Your task to perform on an android device: open app "WhatsApp Messenger" (install if not already installed) Image 0: 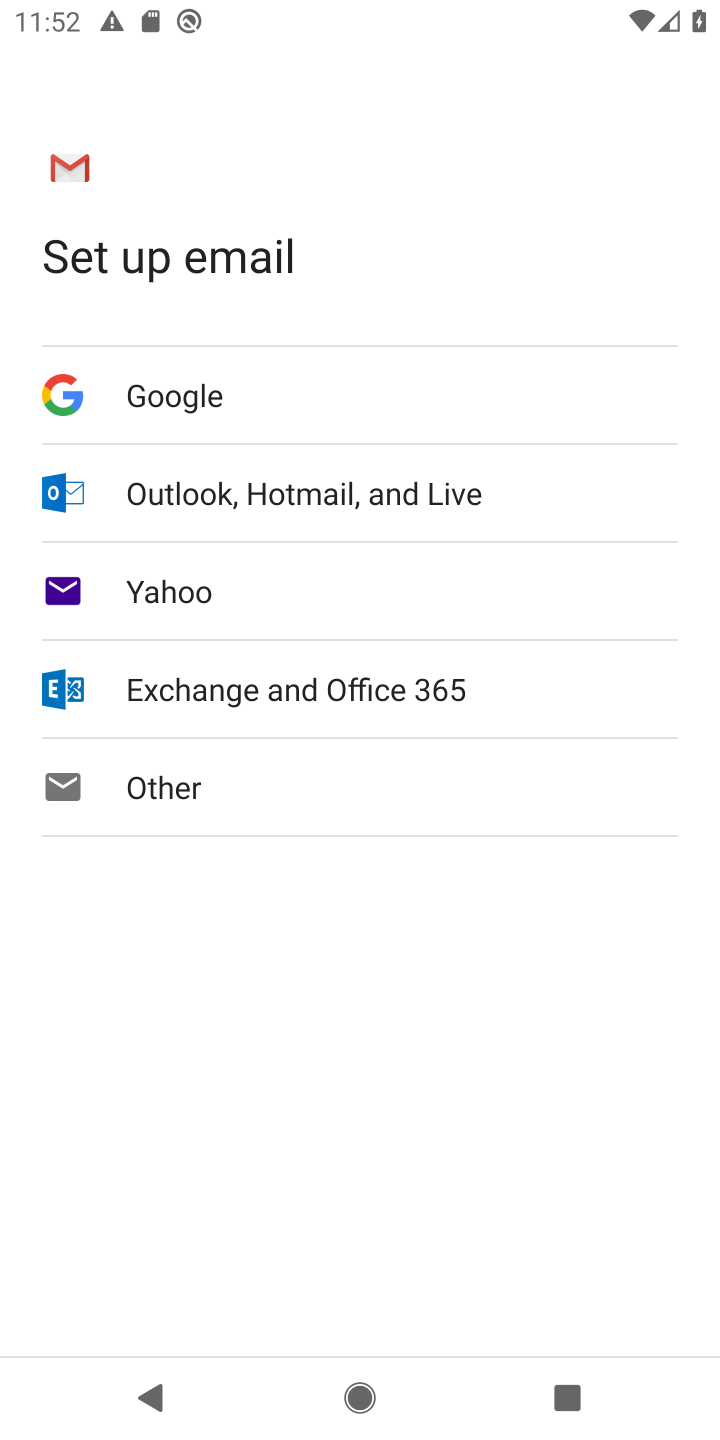
Step 0: press home button
Your task to perform on an android device: open app "WhatsApp Messenger" (install if not already installed) Image 1: 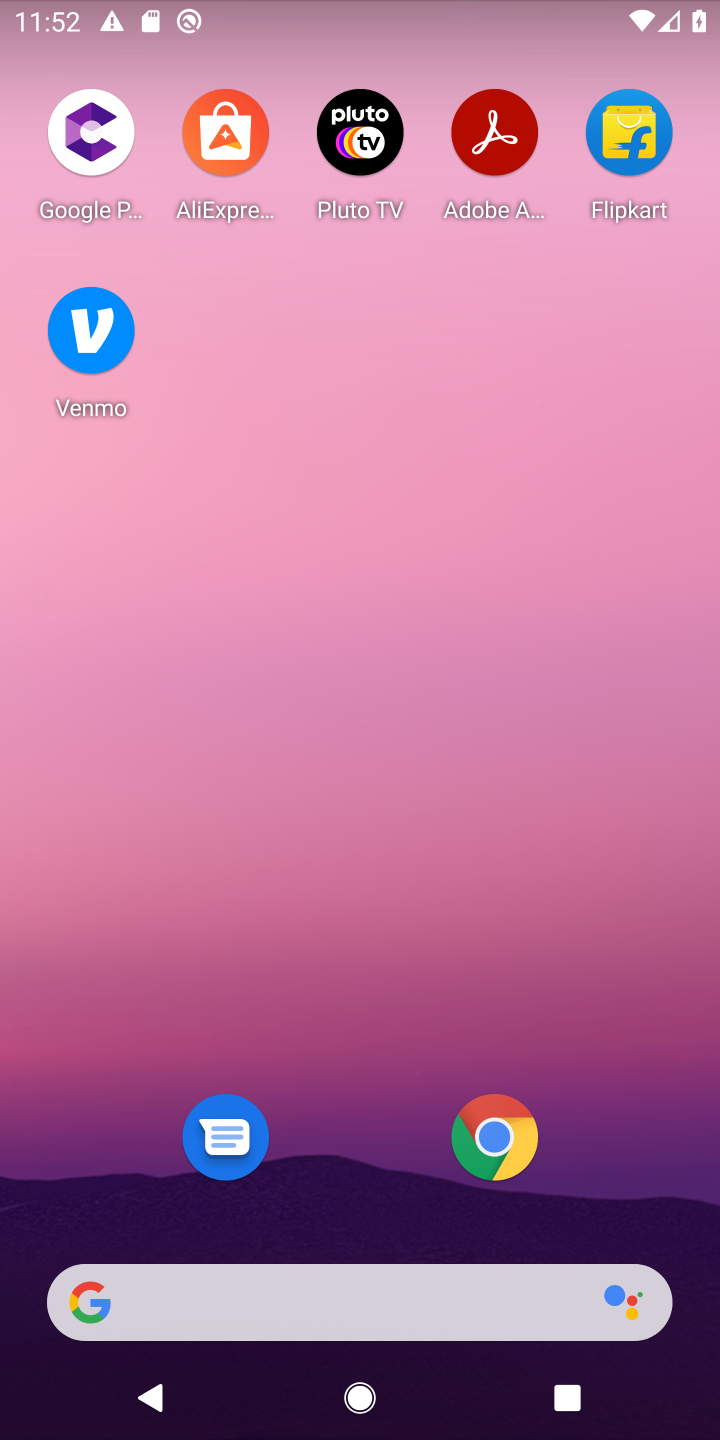
Step 1: drag from (381, 896) to (406, 224)
Your task to perform on an android device: open app "WhatsApp Messenger" (install if not already installed) Image 2: 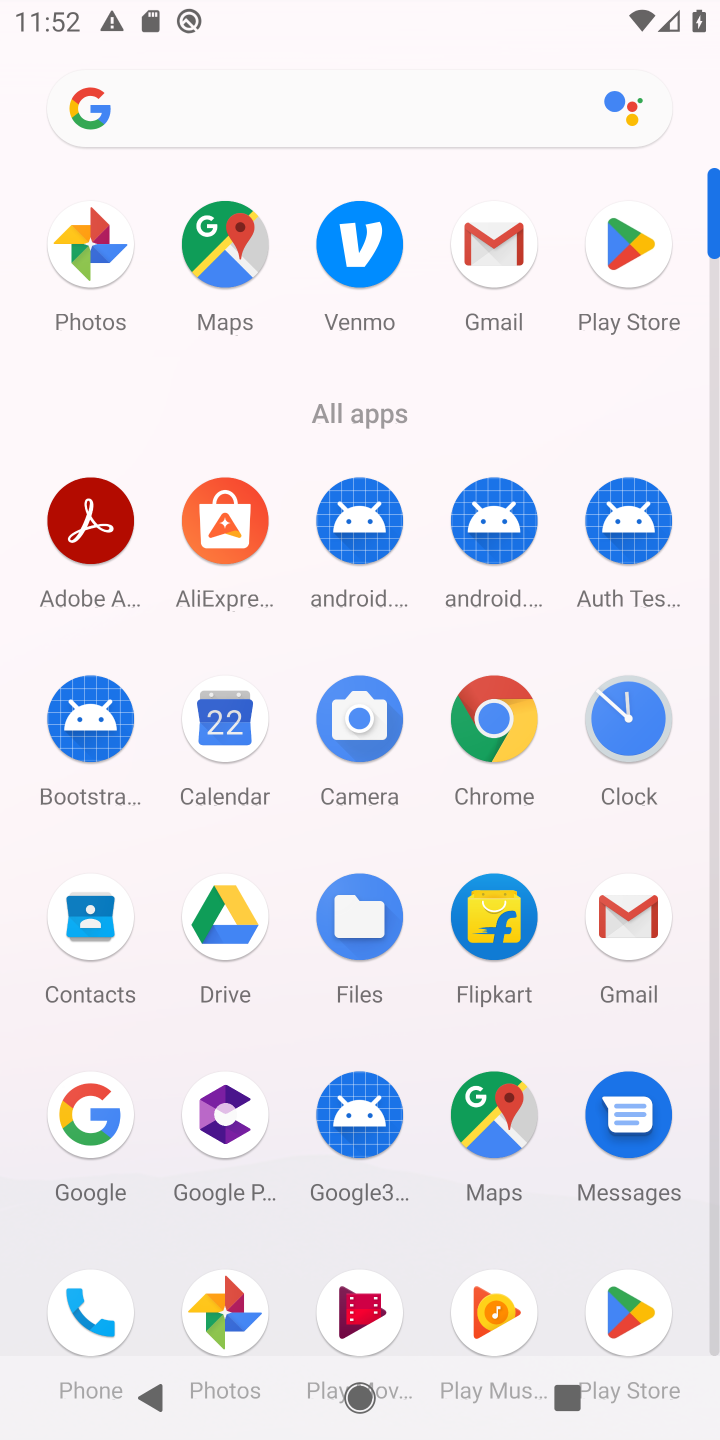
Step 2: click (617, 246)
Your task to perform on an android device: open app "WhatsApp Messenger" (install if not already installed) Image 3: 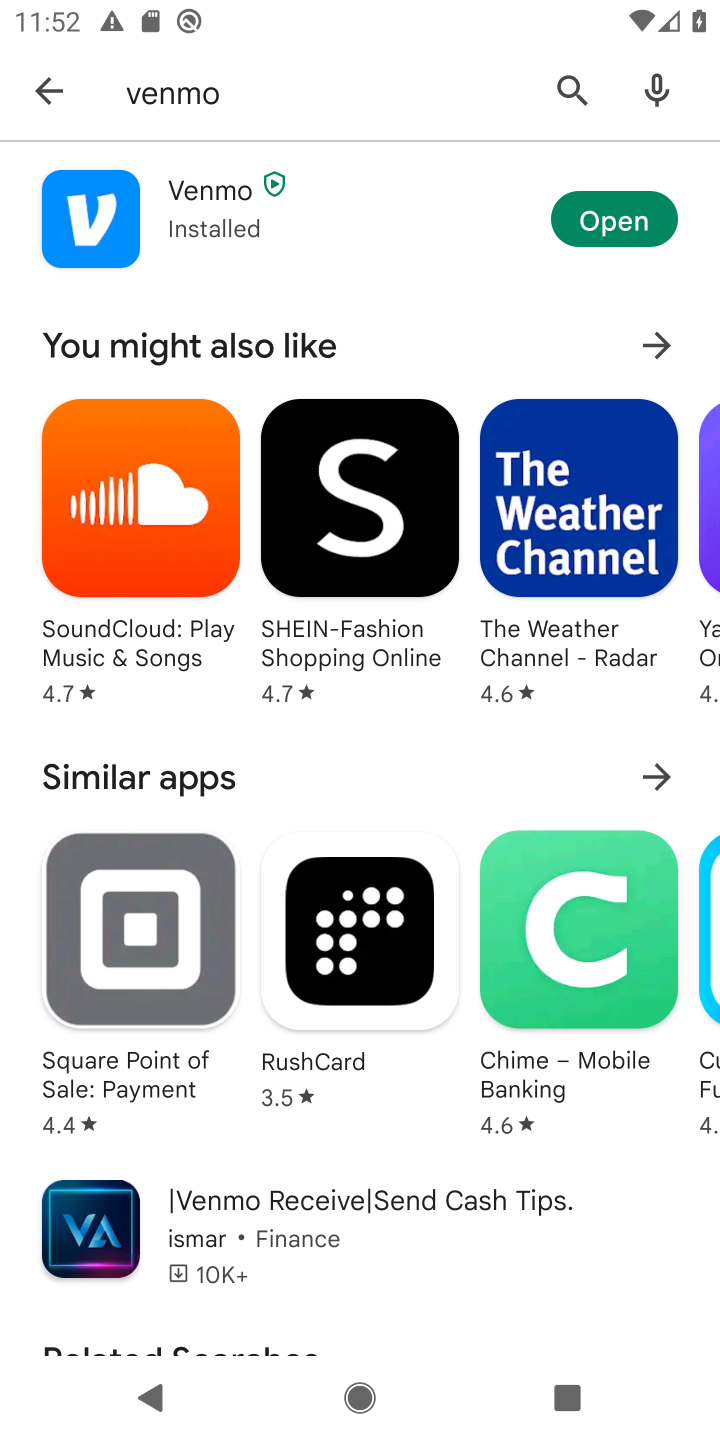
Step 3: click (44, 111)
Your task to perform on an android device: open app "WhatsApp Messenger" (install if not already installed) Image 4: 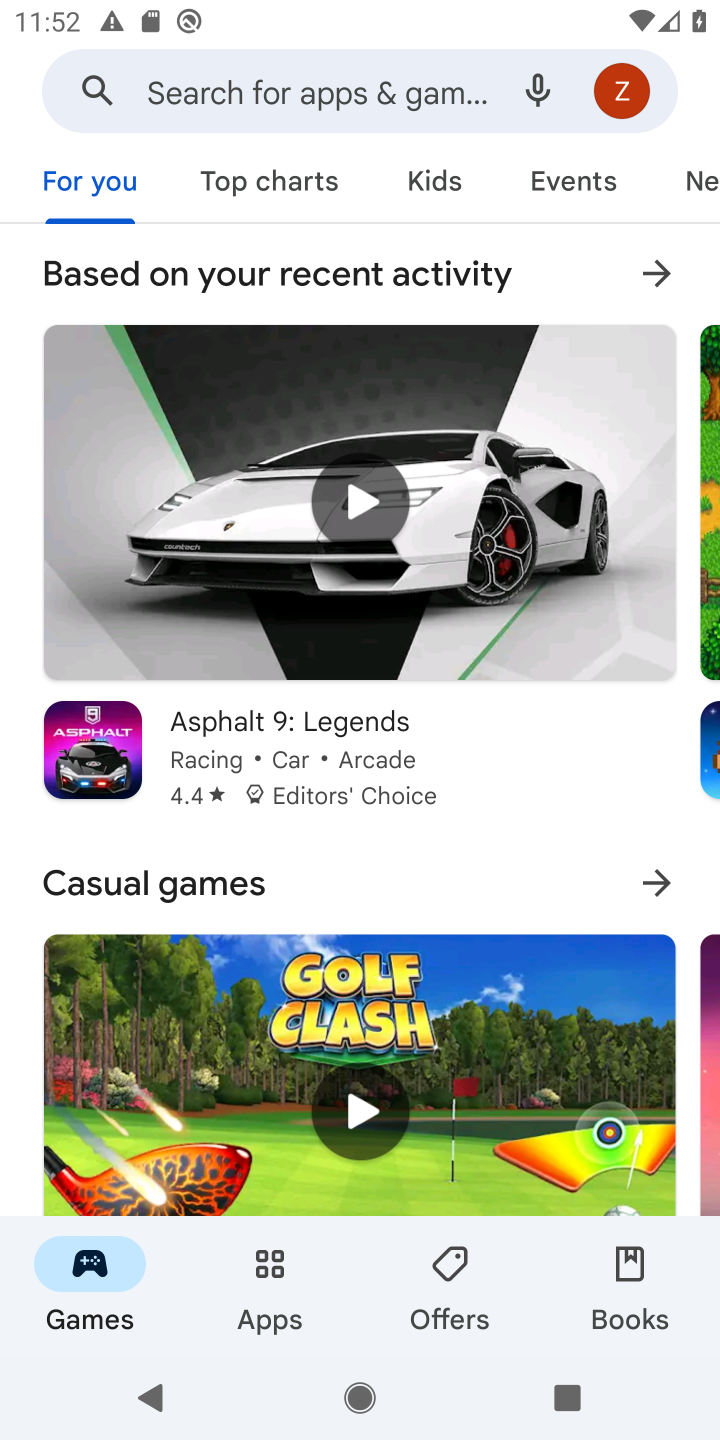
Step 4: click (255, 88)
Your task to perform on an android device: open app "WhatsApp Messenger" (install if not already installed) Image 5: 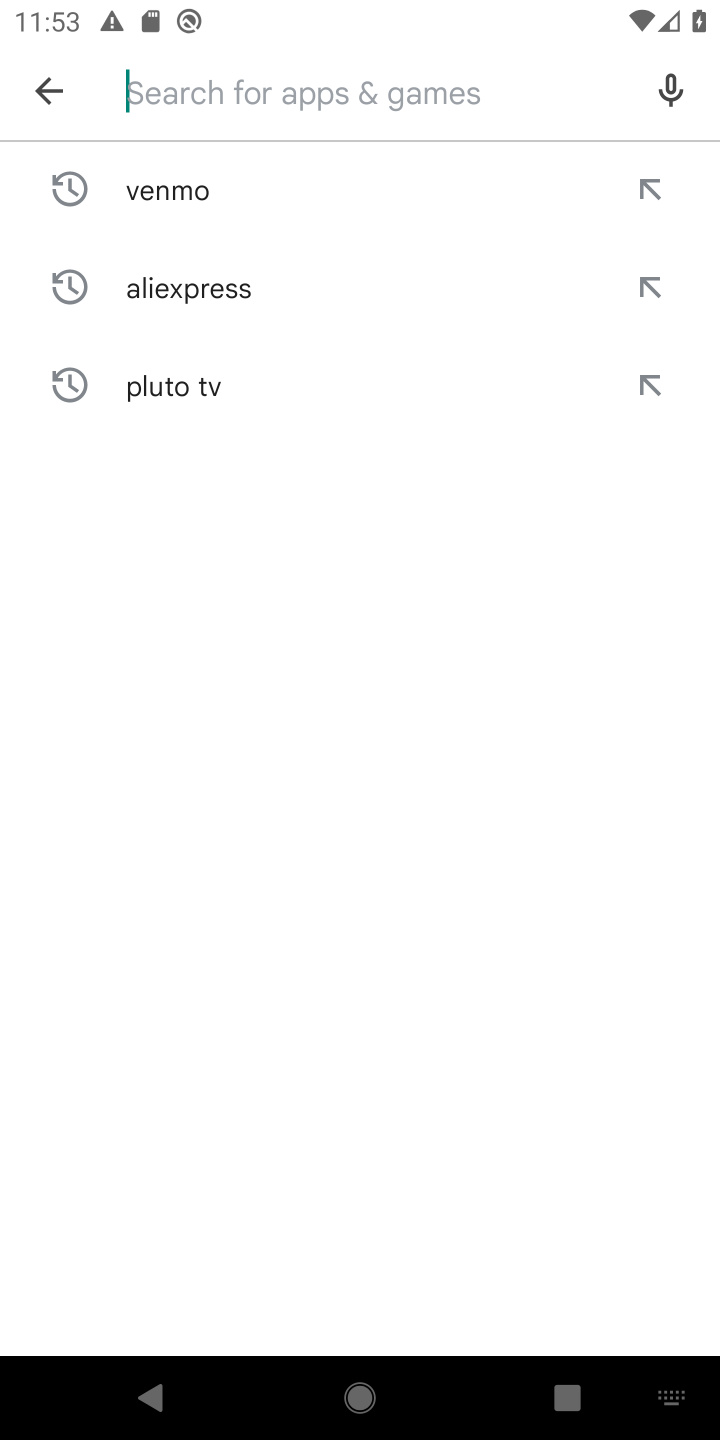
Step 5: type "WhatsApp Messenger"
Your task to perform on an android device: open app "WhatsApp Messenger" (install if not already installed) Image 6: 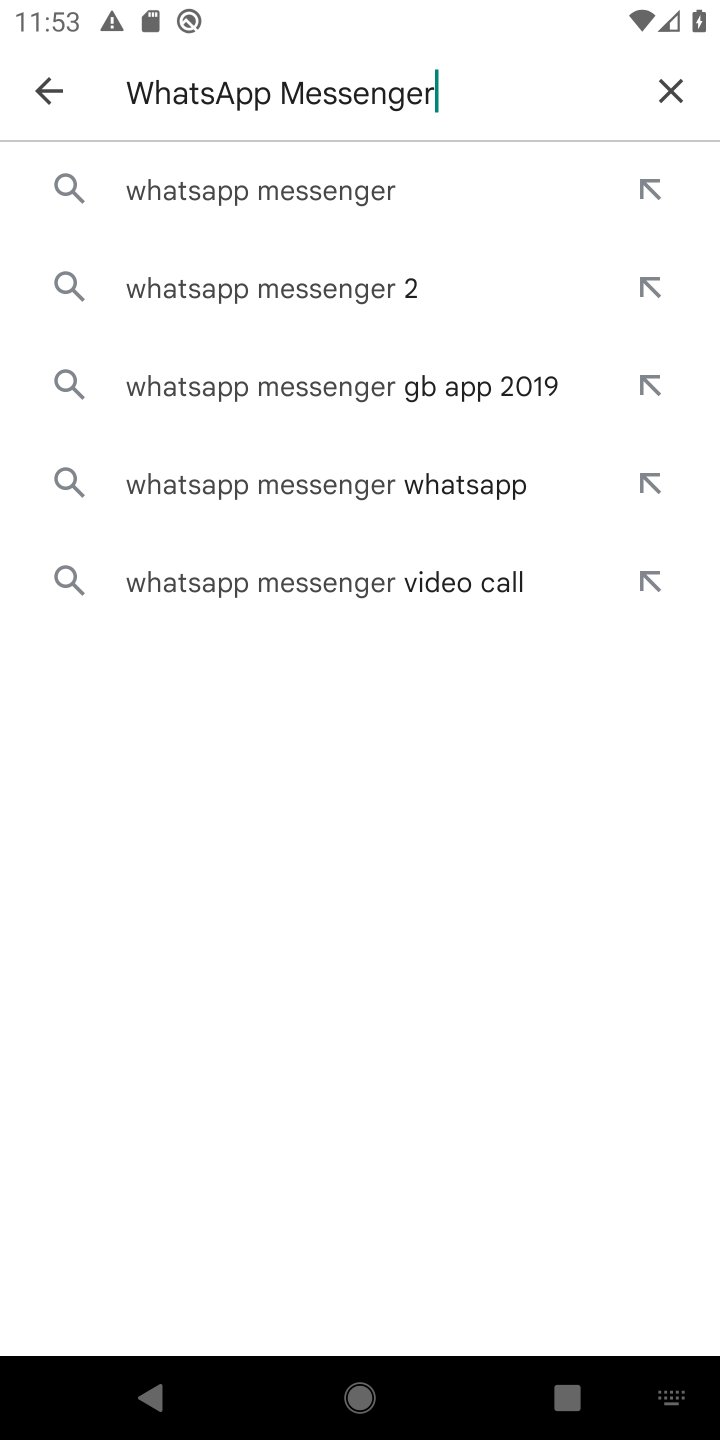
Step 6: click (358, 194)
Your task to perform on an android device: open app "WhatsApp Messenger" (install if not already installed) Image 7: 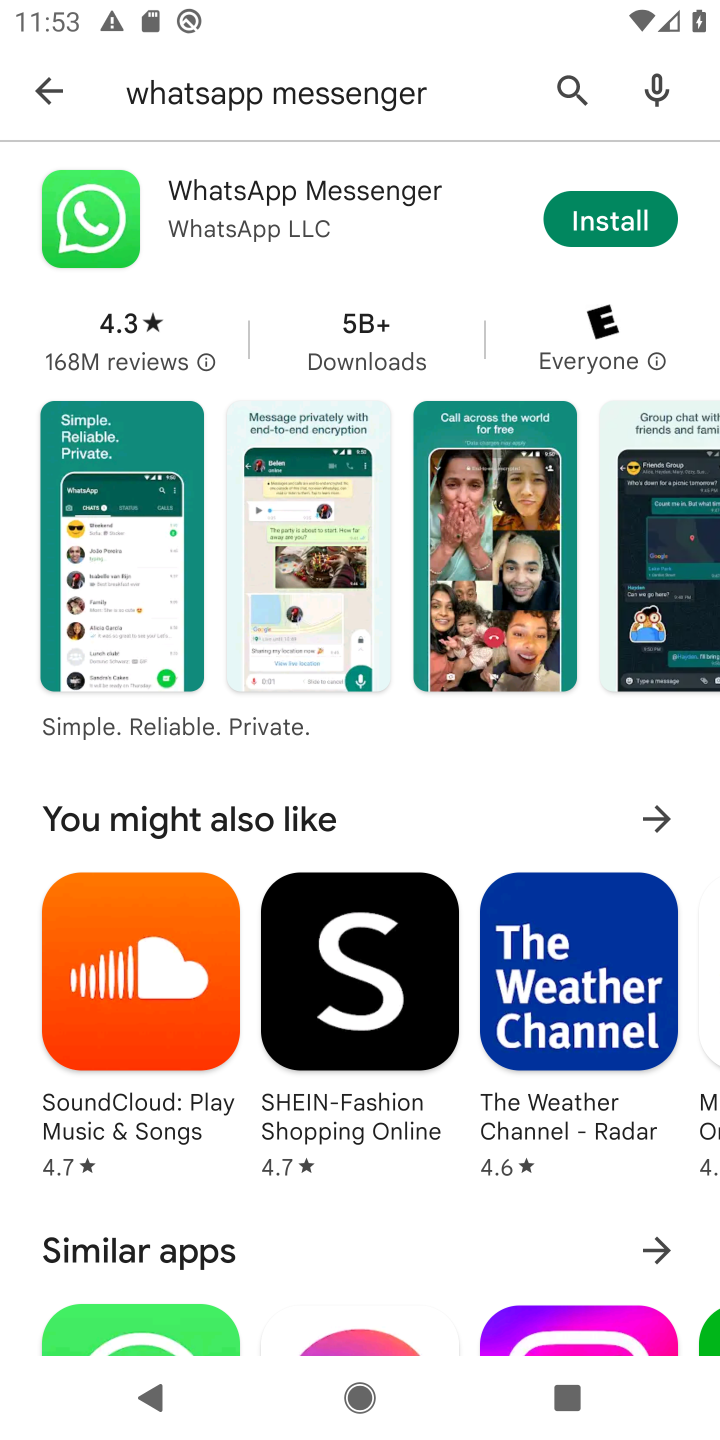
Step 7: click (626, 207)
Your task to perform on an android device: open app "WhatsApp Messenger" (install if not already installed) Image 8: 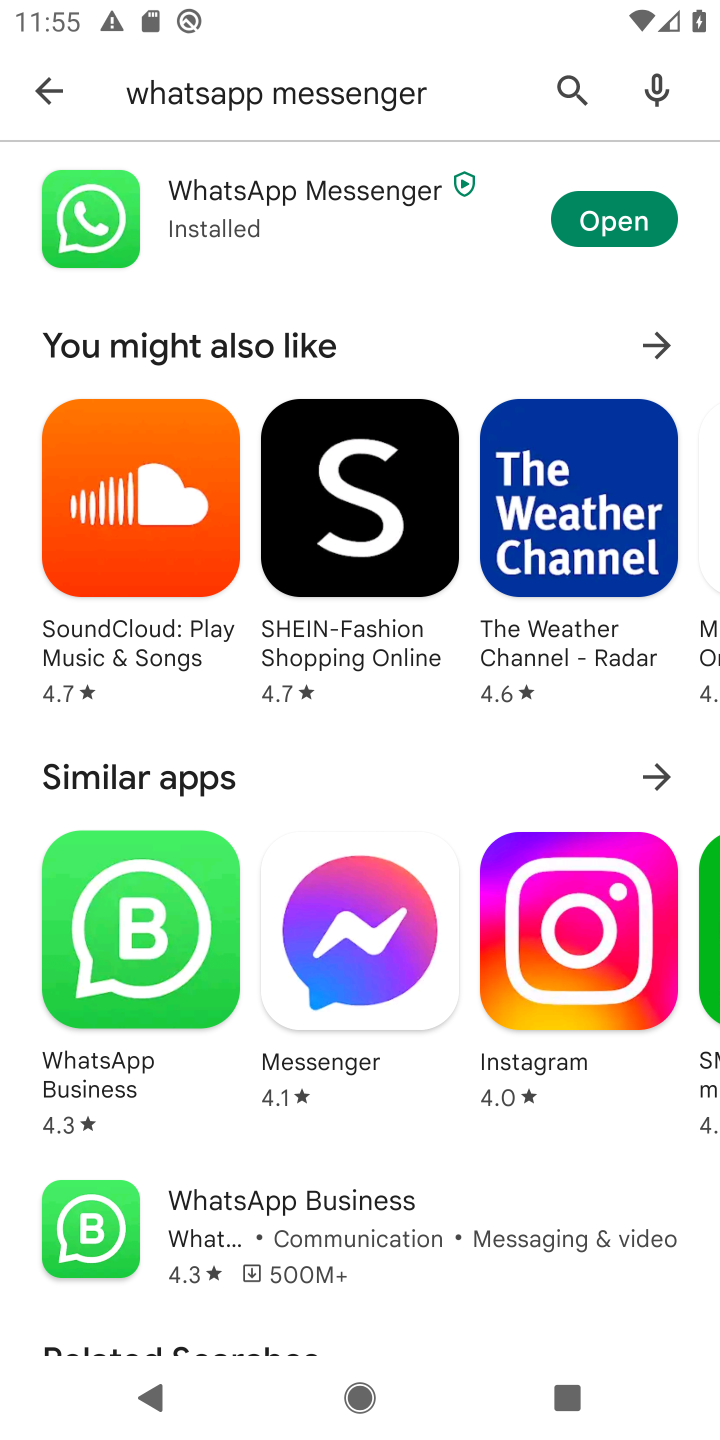
Step 8: click (631, 221)
Your task to perform on an android device: open app "WhatsApp Messenger" (install if not already installed) Image 9: 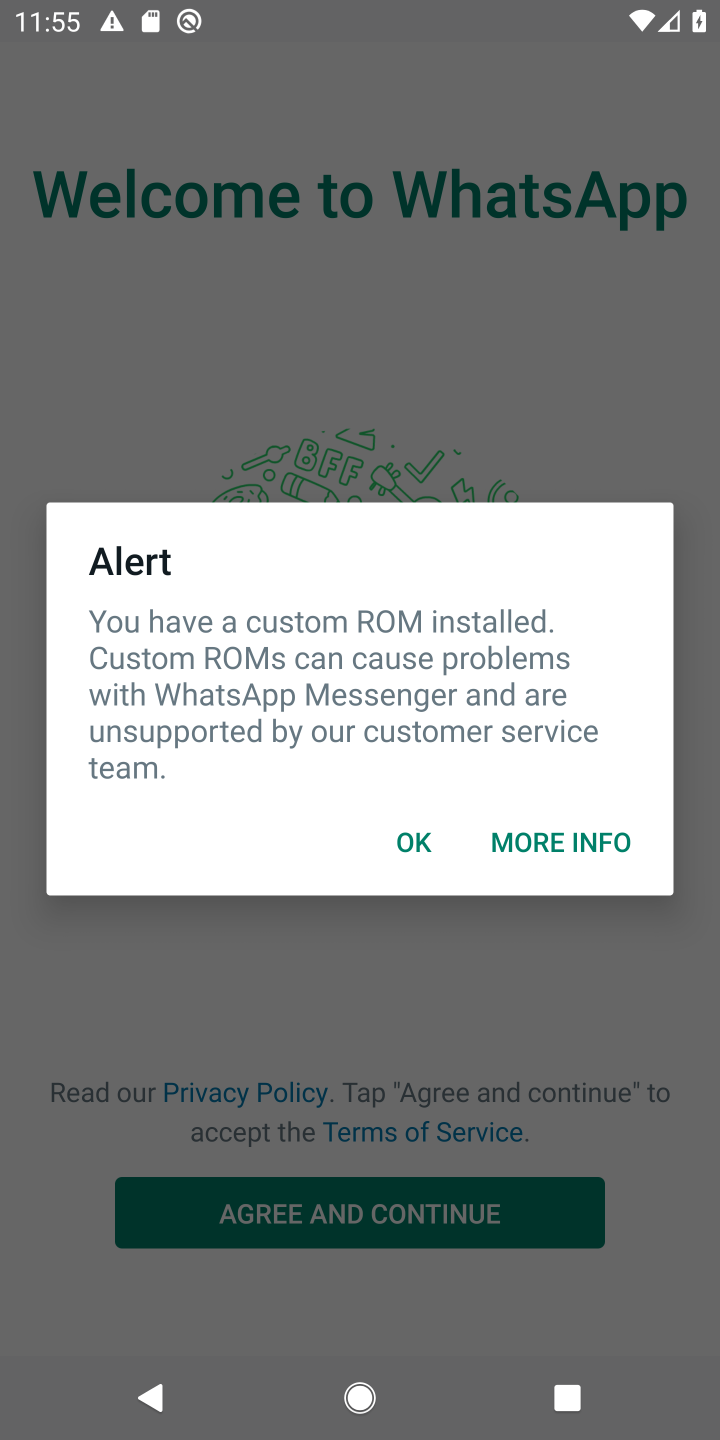
Step 9: click (408, 832)
Your task to perform on an android device: open app "WhatsApp Messenger" (install if not already installed) Image 10: 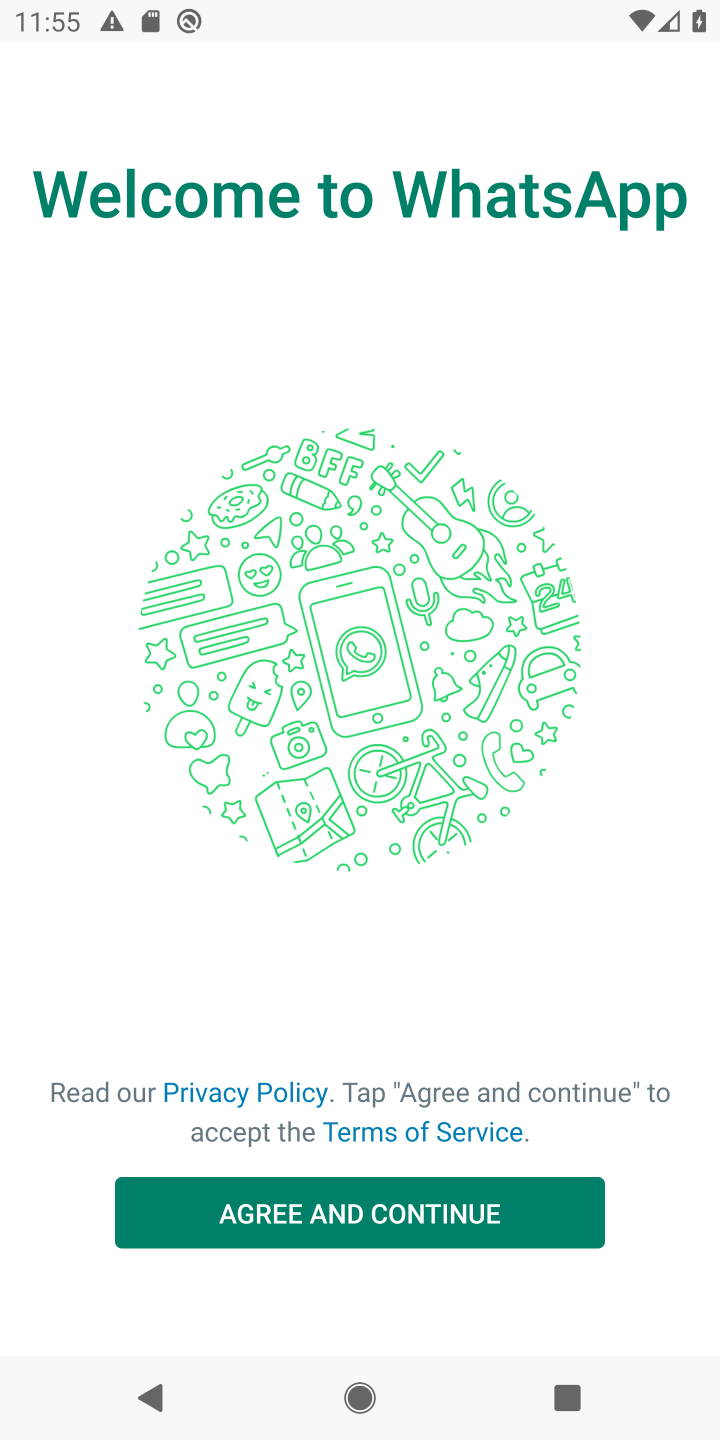
Step 10: task complete